Your task to perform on an android device: turn on javascript in the chrome app Image 0: 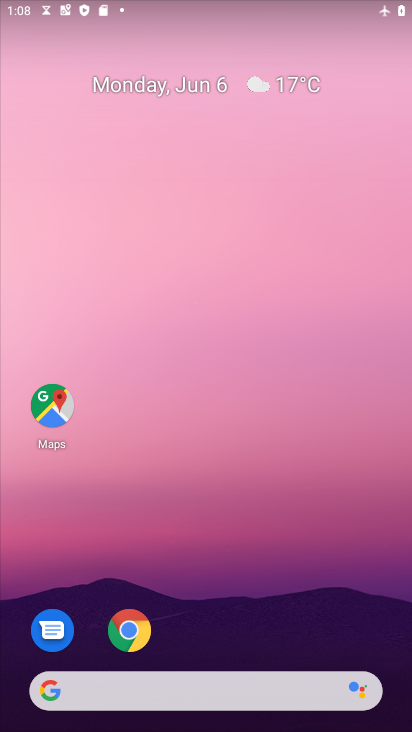
Step 0: drag from (244, 698) to (271, 299)
Your task to perform on an android device: turn on javascript in the chrome app Image 1: 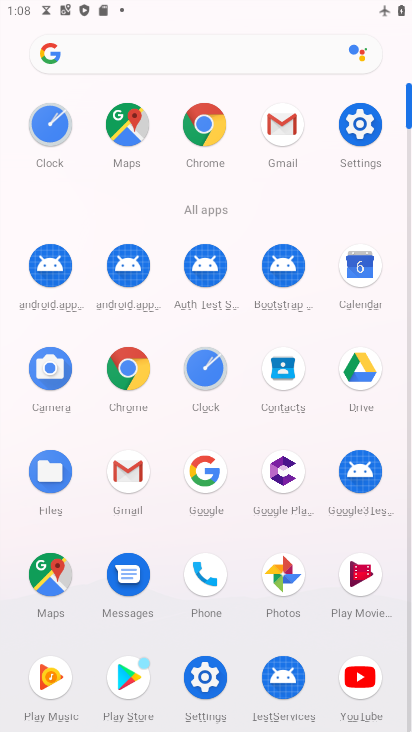
Step 1: click (213, 126)
Your task to perform on an android device: turn on javascript in the chrome app Image 2: 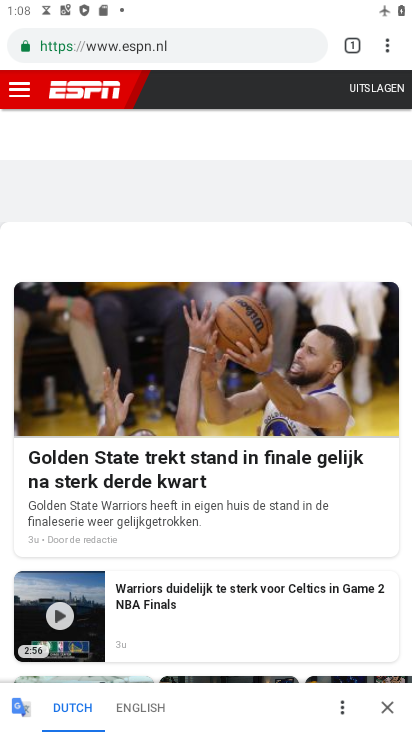
Step 2: drag from (388, 44) to (212, 519)
Your task to perform on an android device: turn on javascript in the chrome app Image 3: 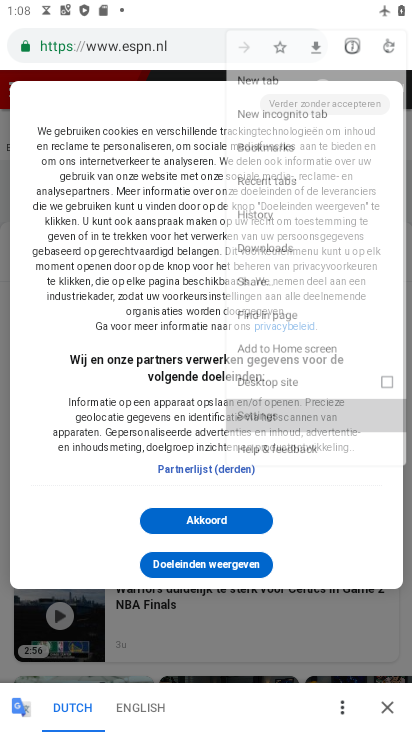
Step 3: click (216, 503)
Your task to perform on an android device: turn on javascript in the chrome app Image 4: 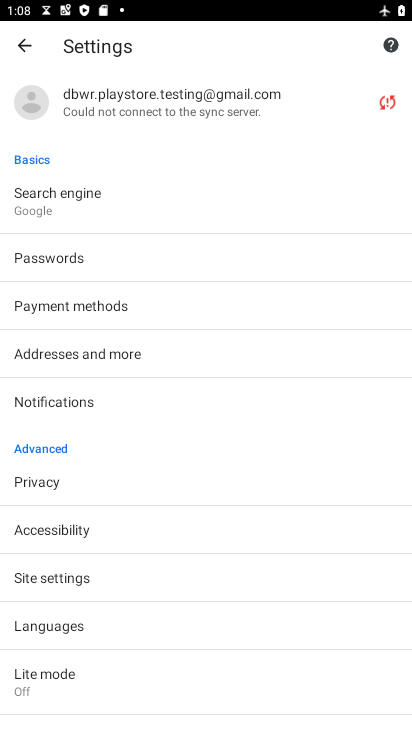
Step 4: drag from (89, 599) to (102, 222)
Your task to perform on an android device: turn on javascript in the chrome app Image 5: 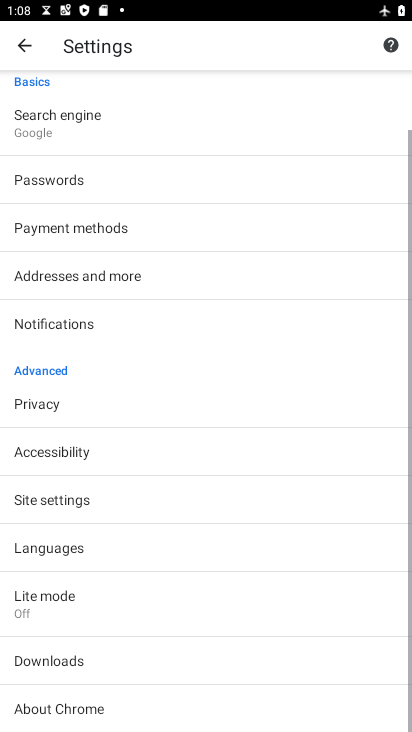
Step 5: drag from (66, 518) to (148, 336)
Your task to perform on an android device: turn on javascript in the chrome app Image 6: 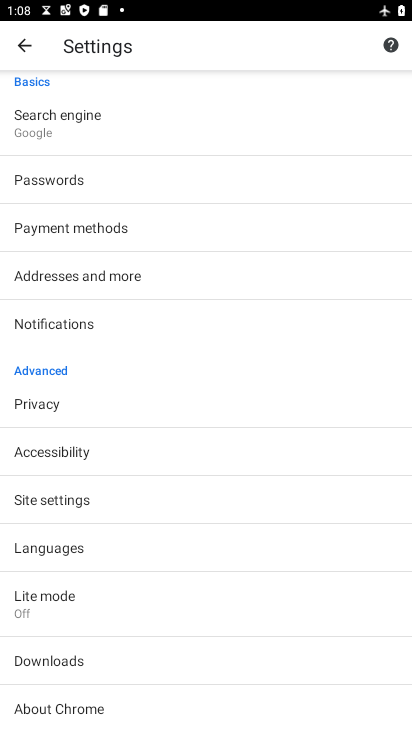
Step 6: click (30, 500)
Your task to perform on an android device: turn on javascript in the chrome app Image 7: 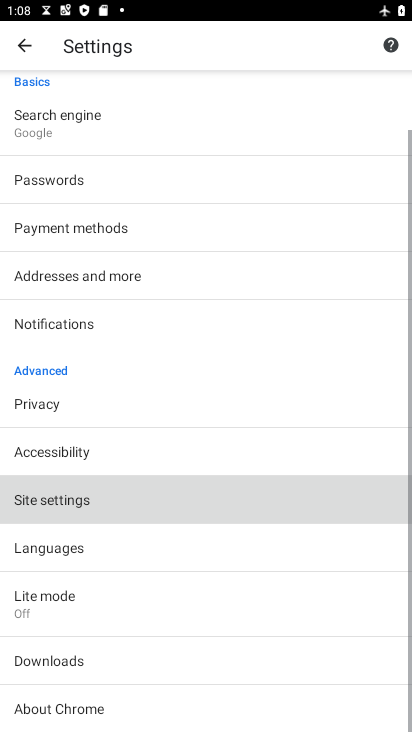
Step 7: click (31, 501)
Your task to perform on an android device: turn on javascript in the chrome app Image 8: 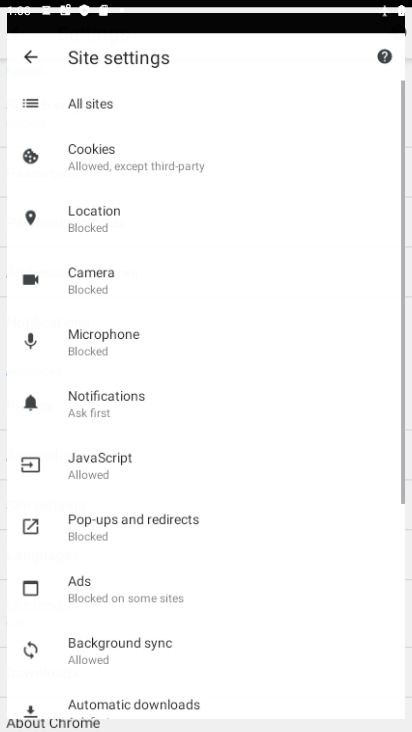
Step 8: click (32, 501)
Your task to perform on an android device: turn on javascript in the chrome app Image 9: 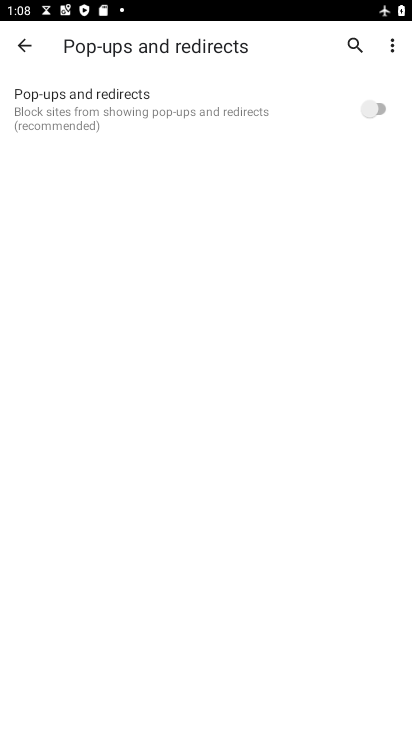
Step 9: click (29, 48)
Your task to perform on an android device: turn on javascript in the chrome app Image 10: 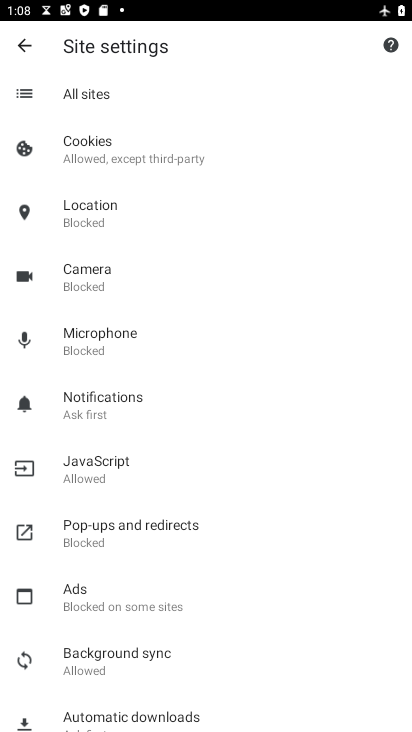
Step 10: click (87, 473)
Your task to perform on an android device: turn on javascript in the chrome app Image 11: 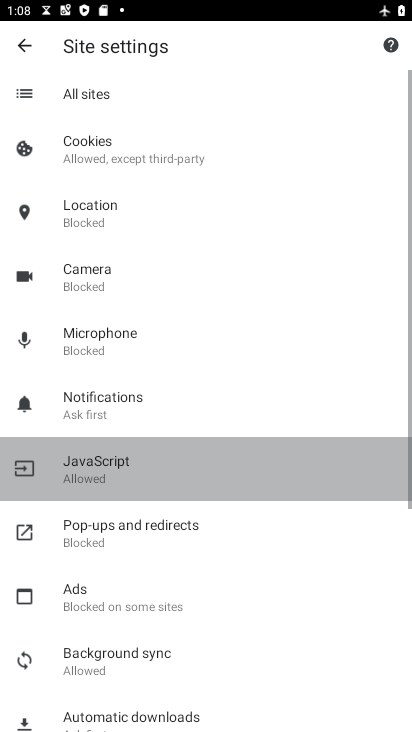
Step 11: click (87, 473)
Your task to perform on an android device: turn on javascript in the chrome app Image 12: 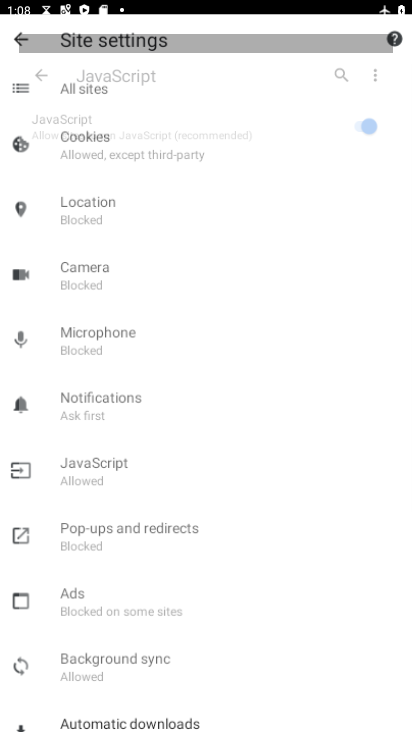
Step 12: click (86, 471)
Your task to perform on an android device: turn on javascript in the chrome app Image 13: 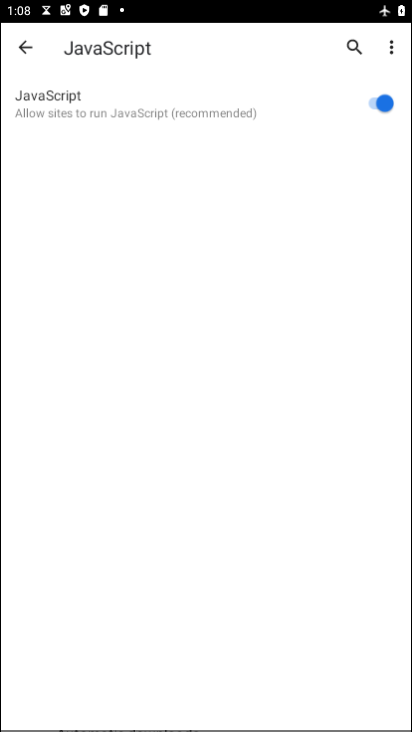
Step 13: click (86, 470)
Your task to perform on an android device: turn on javascript in the chrome app Image 14: 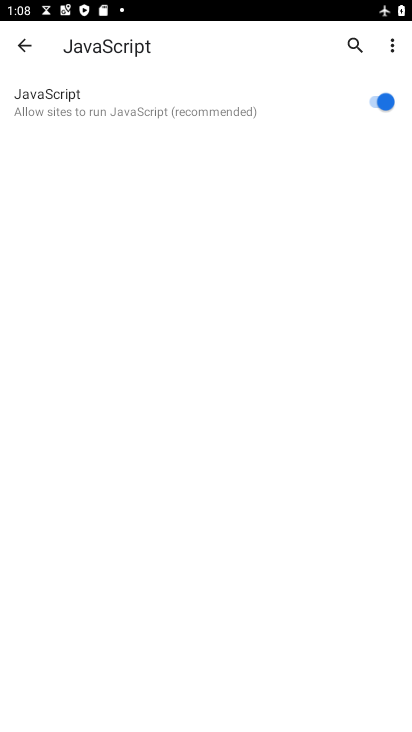
Step 14: task complete